Your task to perform on an android device: Open sound settings Image 0: 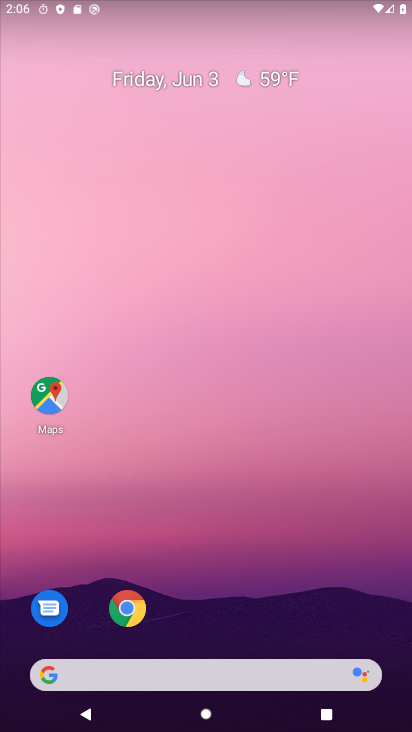
Step 0: drag from (215, 663) to (177, 7)
Your task to perform on an android device: Open sound settings Image 1: 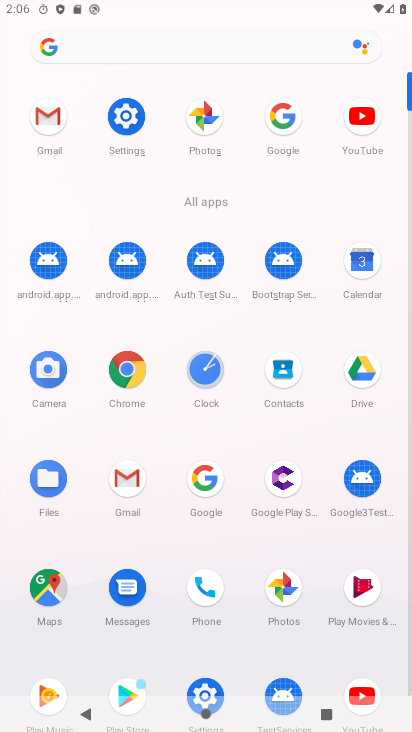
Step 1: click (132, 121)
Your task to perform on an android device: Open sound settings Image 2: 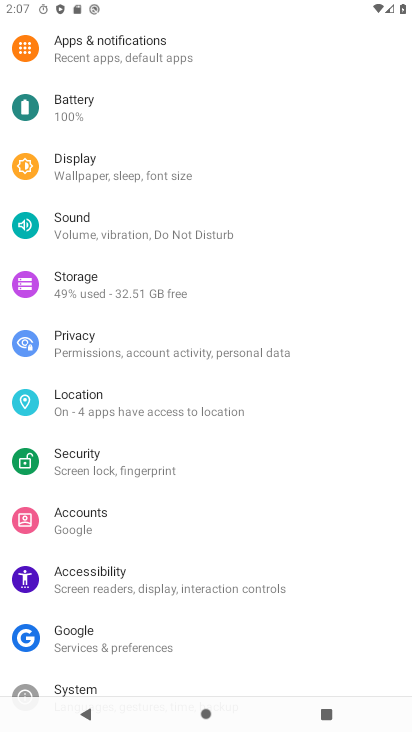
Step 2: click (135, 222)
Your task to perform on an android device: Open sound settings Image 3: 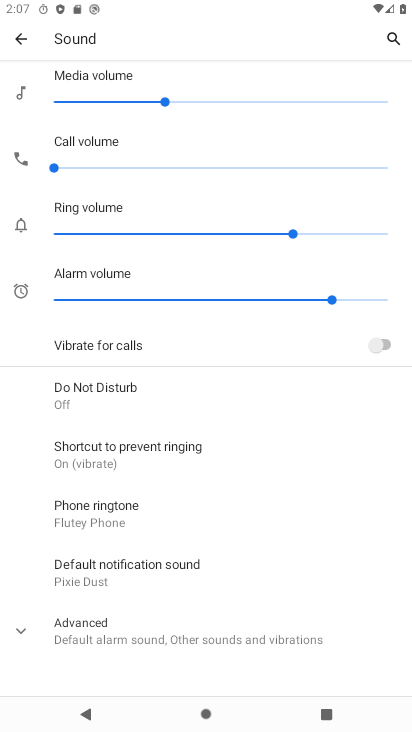
Step 3: task complete